Your task to perform on an android device: uninstall "The Home Depot" Image 0: 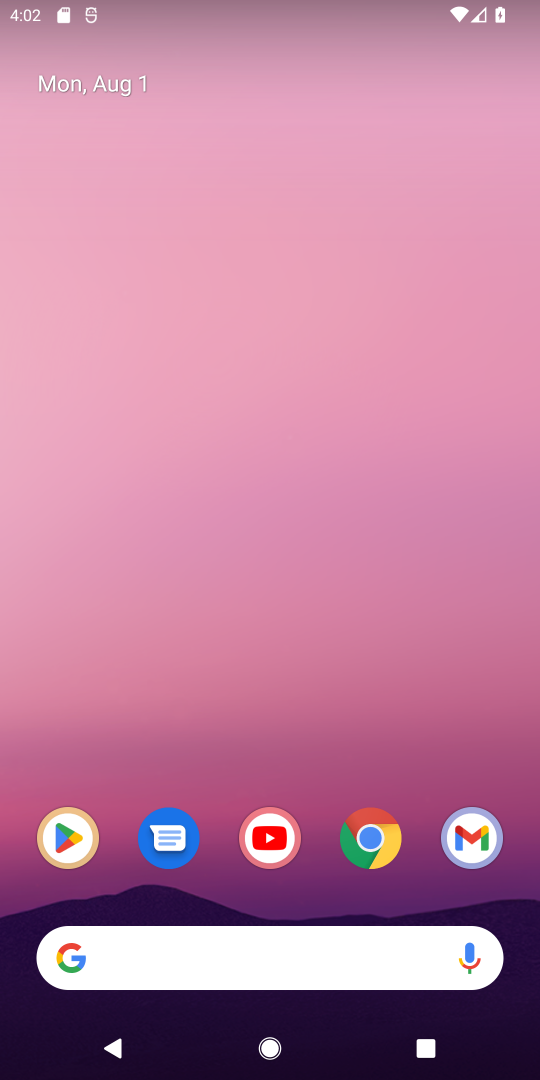
Step 0: click (82, 839)
Your task to perform on an android device: uninstall "The Home Depot" Image 1: 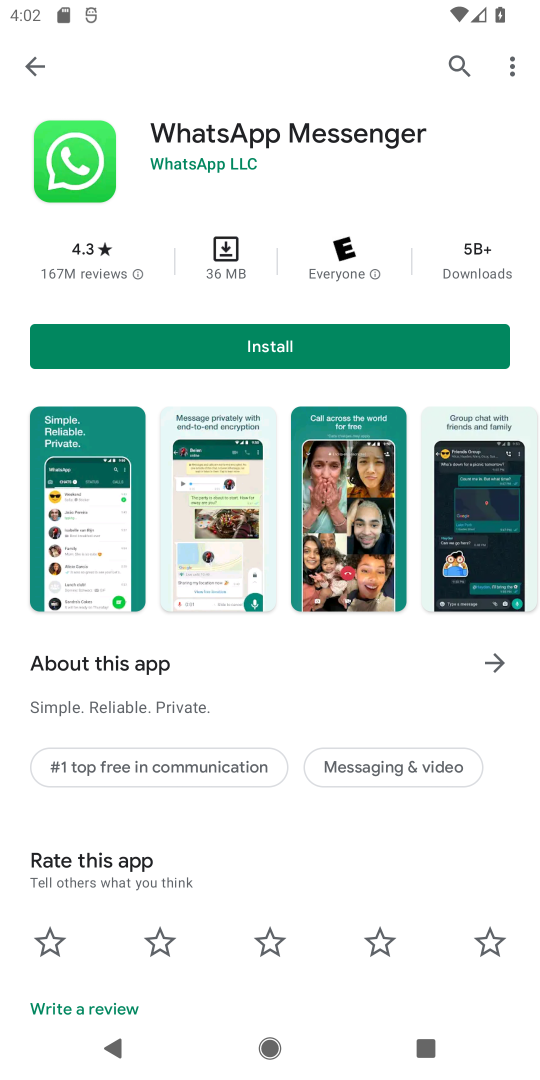
Step 1: click (447, 63)
Your task to perform on an android device: uninstall "The Home Depot" Image 2: 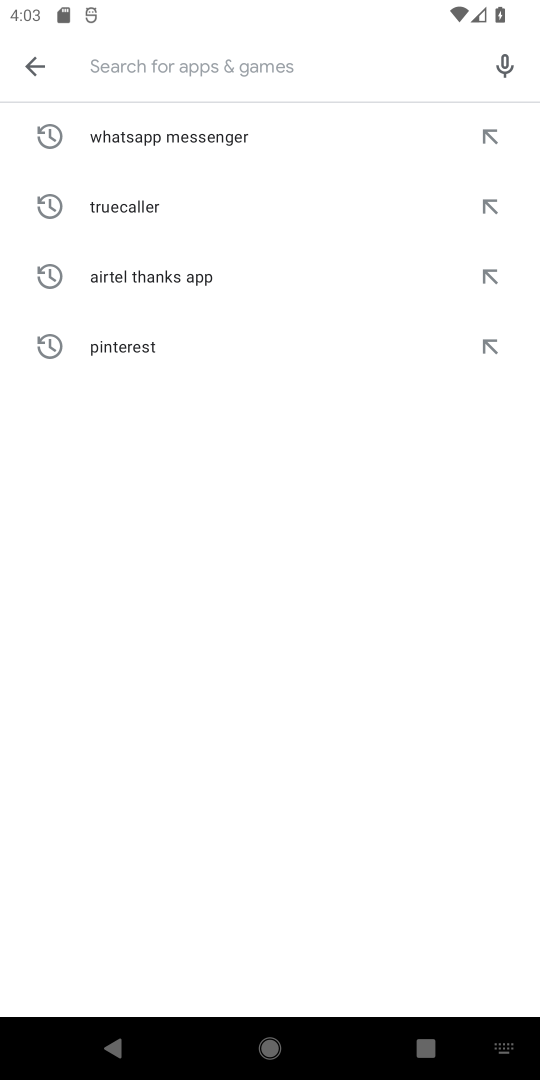
Step 2: type "he Home Depot"
Your task to perform on an android device: uninstall "The Home Depot" Image 3: 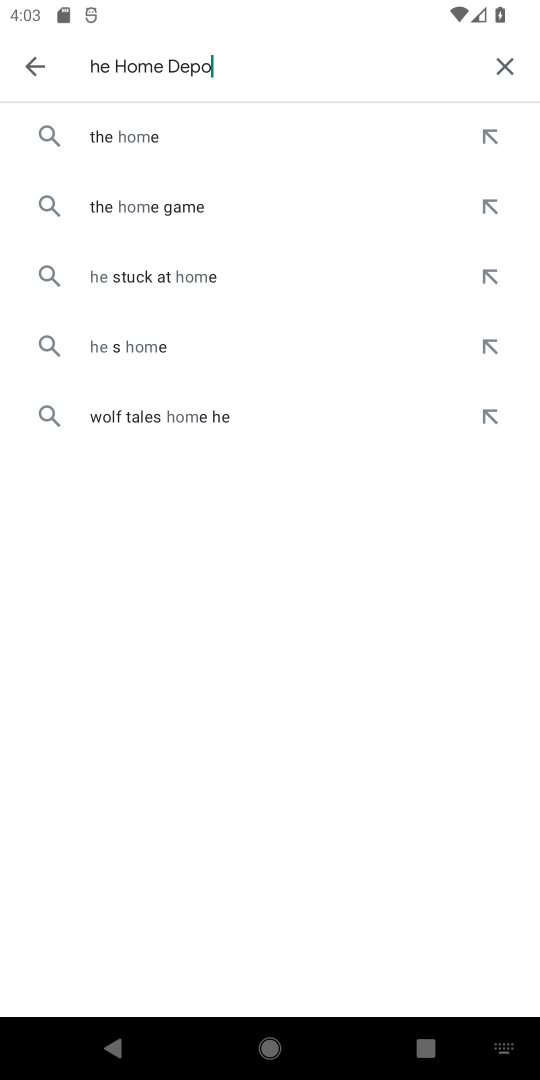
Step 3: type ""
Your task to perform on an android device: uninstall "The Home Depot" Image 4: 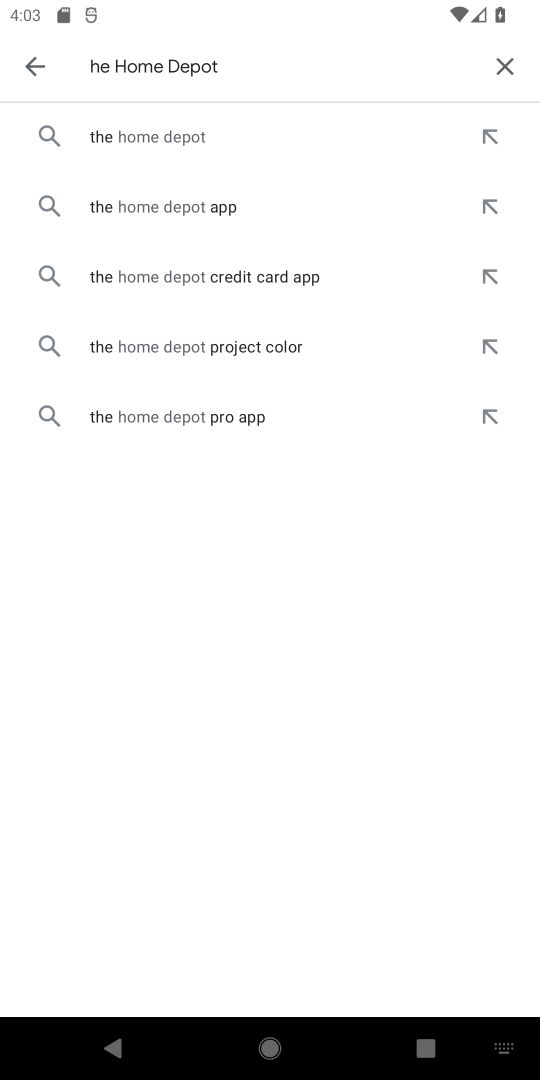
Step 4: click (186, 140)
Your task to perform on an android device: uninstall "The Home Depot" Image 5: 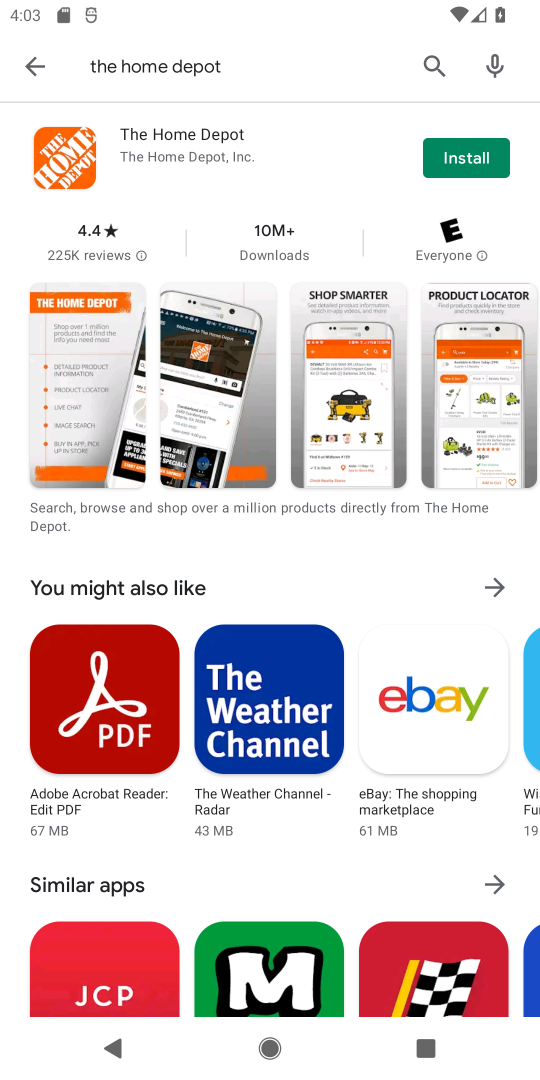
Step 5: task complete